Your task to perform on an android device: show emergency info Image 0: 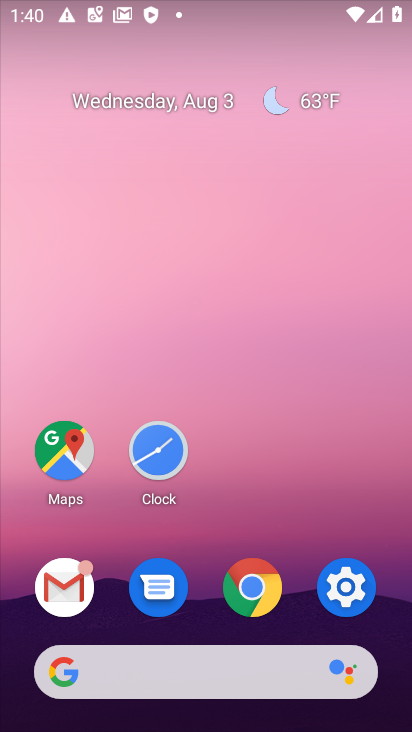
Step 0: click (352, 596)
Your task to perform on an android device: show emergency info Image 1: 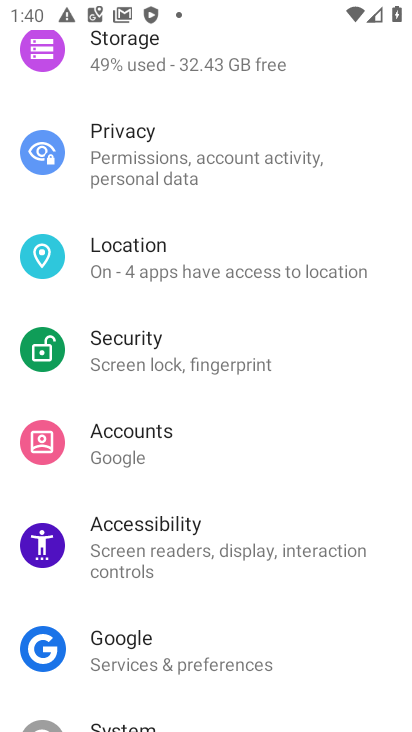
Step 1: drag from (167, 2) to (340, 53)
Your task to perform on an android device: show emergency info Image 2: 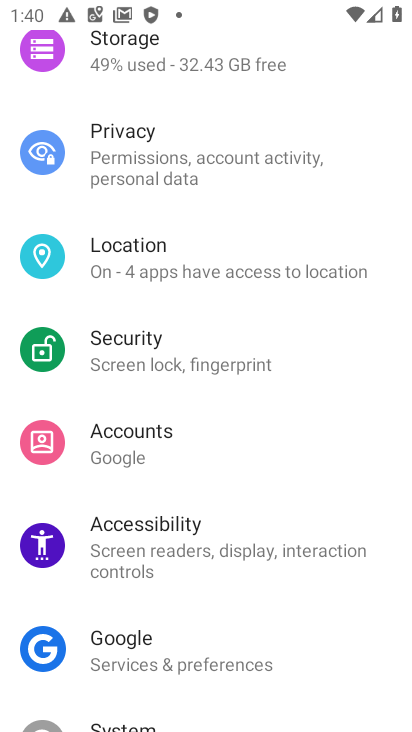
Step 2: drag from (232, 587) to (251, 4)
Your task to perform on an android device: show emergency info Image 3: 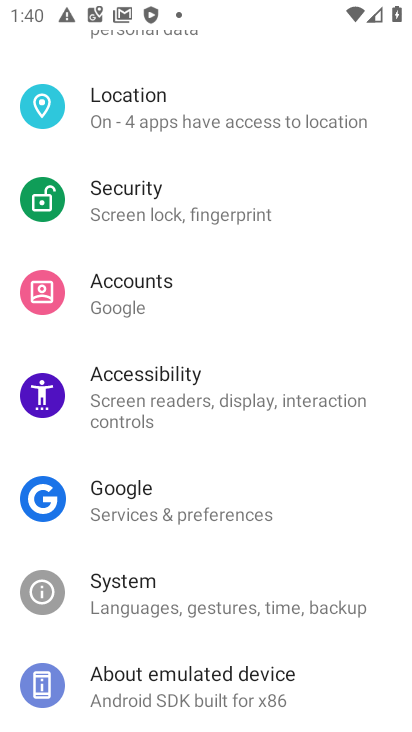
Step 3: drag from (219, 581) to (252, 117)
Your task to perform on an android device: show emergency info Image 4: 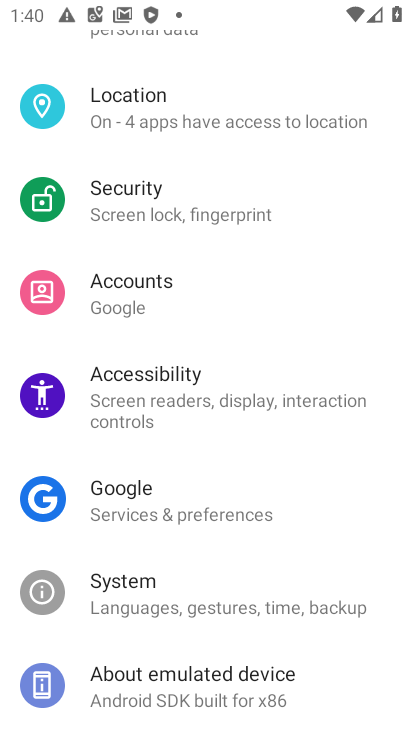
Step 4: drag from (198, 654) to (178, 344)
Your task to perform on an android device: show emergency info Image 5: 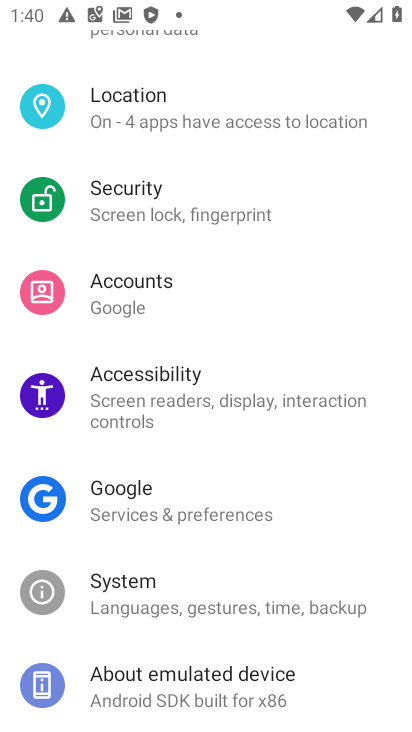
Step 5: click (174, 672)
Your task to perform on an android device: show emergency info Image 6: 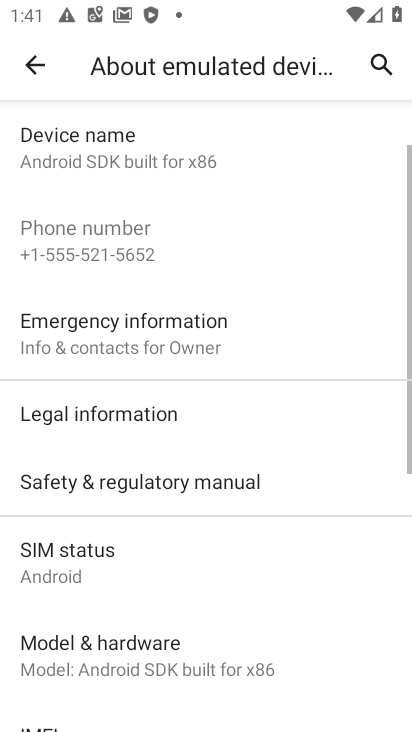
Step 6: click (107, 323)
Your task to perform on an android device: show emergency info Image 7: 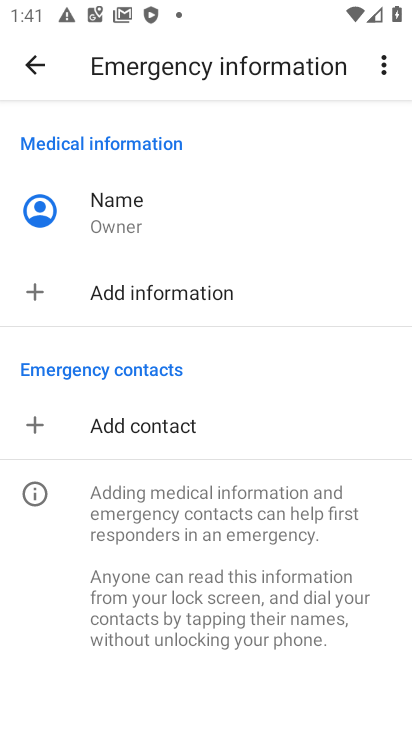
Step 7: task complete